Your task to perform on an android device: What is the news today? Image 0: 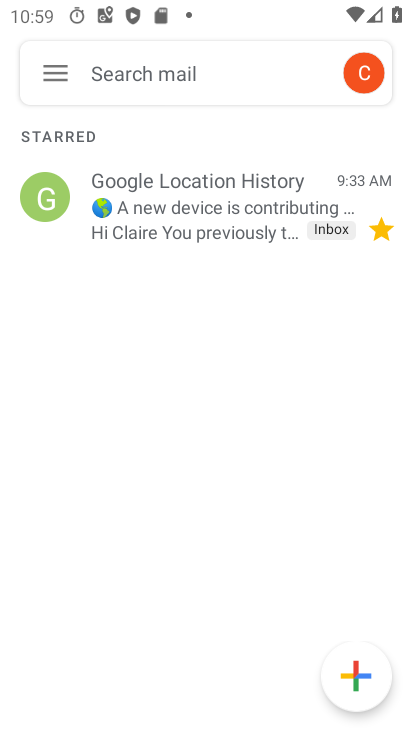
Step 0: press home button
Your task to perform on an android device: What is the news today? Image 1: 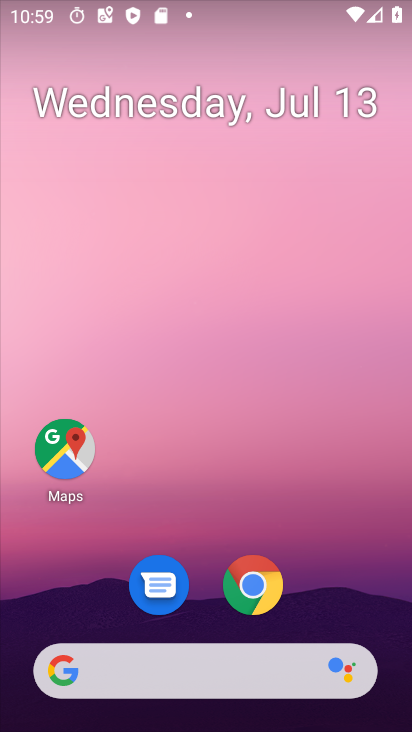
Step 1: click (257, 673)
Your task to perform on an android device: What is the news today? Image 2: 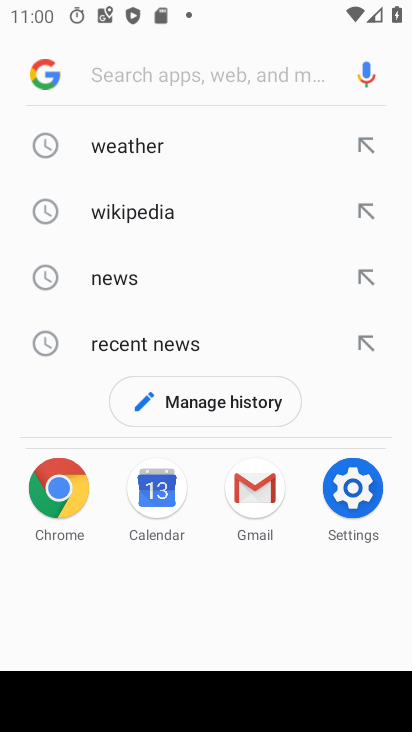
Step 2: click (116, 283)
Your task to perform on an android device: What is the news today? Image 3: 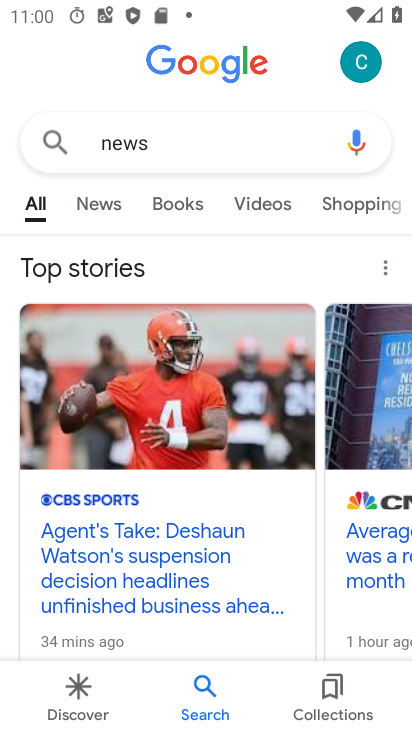
Step 3: drag from (160, 558) to (167, 316)
Your task to perform on an android device: What is the news today? Image 4: 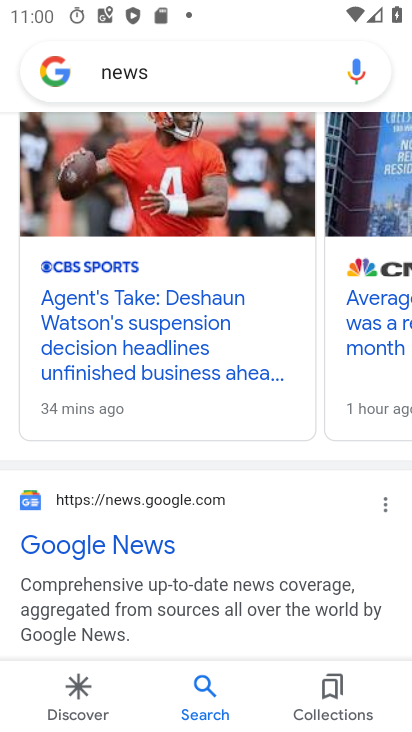
Step 4: click (144, 349)
Your task to perform on an android device: What is the news today? Image 5: 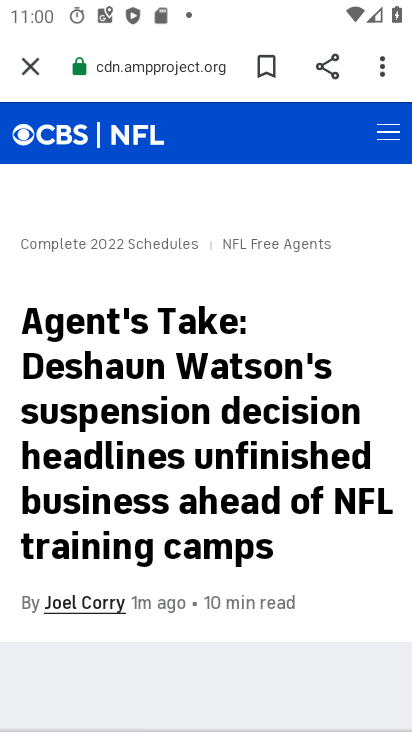
Step 5: task complete